Your task to perform on an android device: stop showing notifications on the lock screen Image 0: 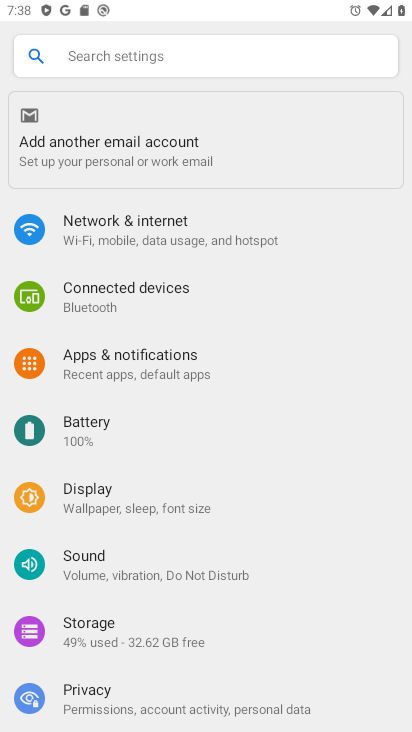
Step 0: click (138, 371)
Your task to perform on an android device: stop showing notifications on the lock screen Image 1: 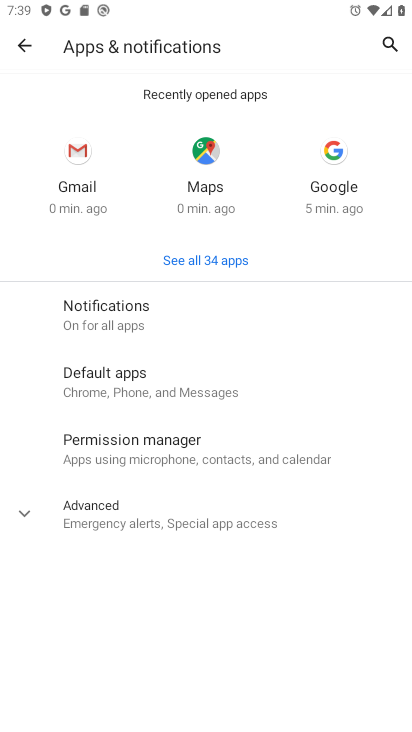
Step 1: click (108, 308)
Your task to perform on an android device: stop showing notifications on the lock screen Image 2: 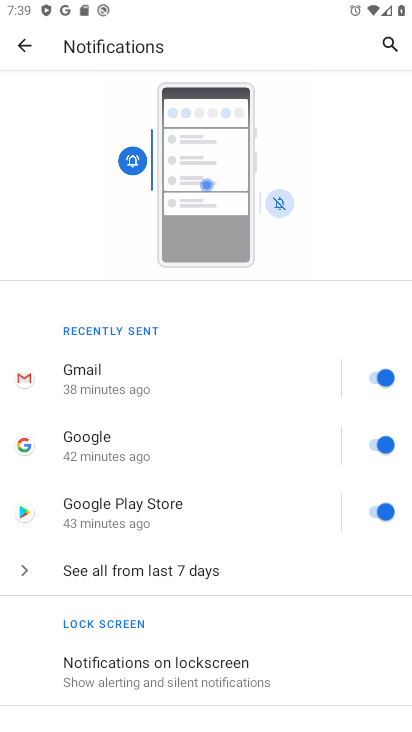
Step 2: click (103, 676)
Your task to perform on an android device: stop showing notifications on the lock screen Image 3: 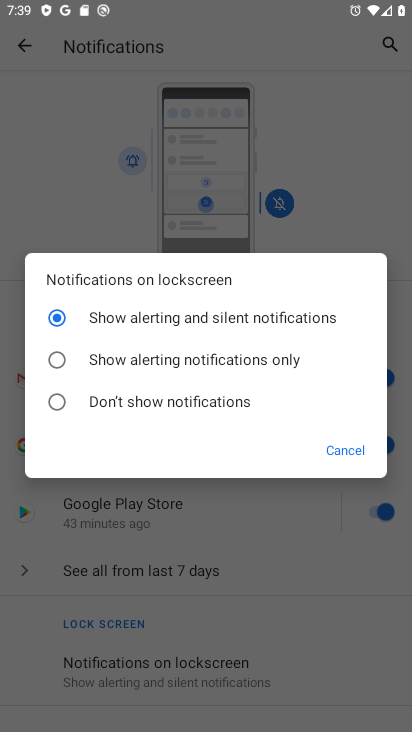
Step 3: click (115, 396)
Your task to perform on an android device: stop showing notifications on the lock screen Image 4: 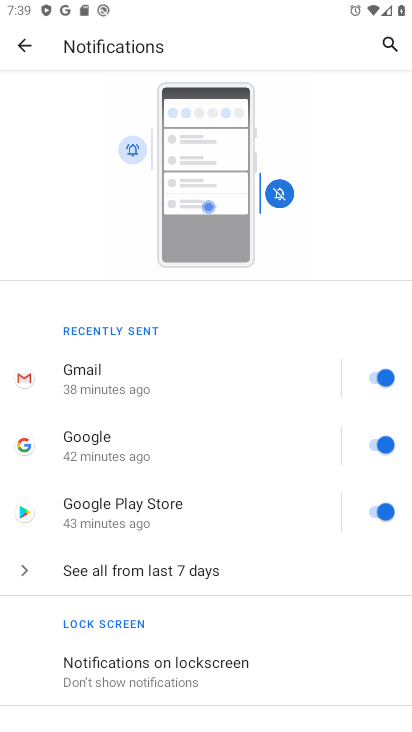
Step 4: task complete